Your task to perform on an android device: turn off airplane mode Image 0: 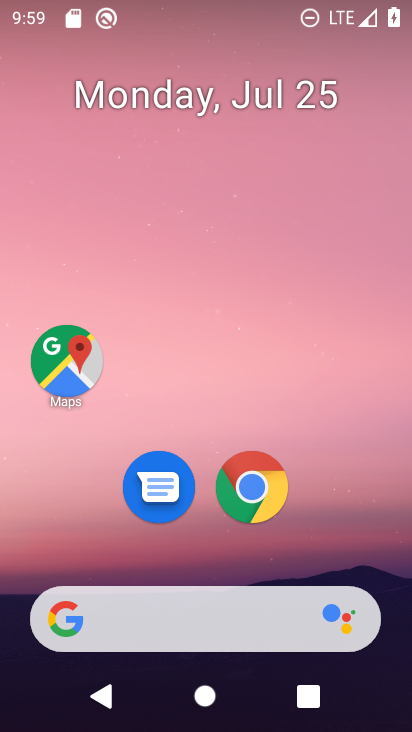
Step 0: drag from (370, 7) to (285, 490)
Your task to perform on an android device: turn off airplane mode Image 1: 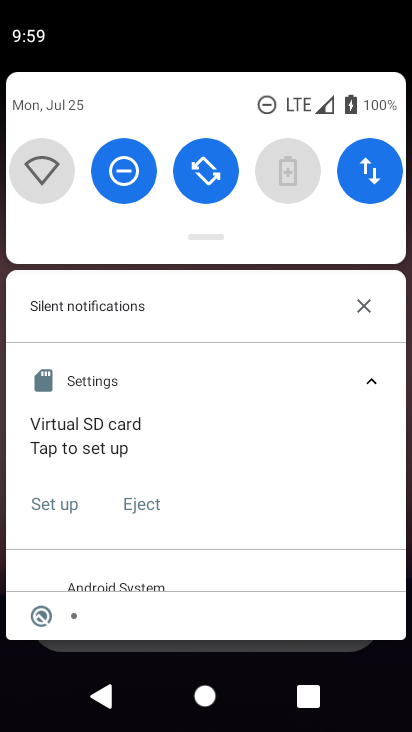
Step 1: task complete